Your task to perform on an android device: check google app version Image 0: 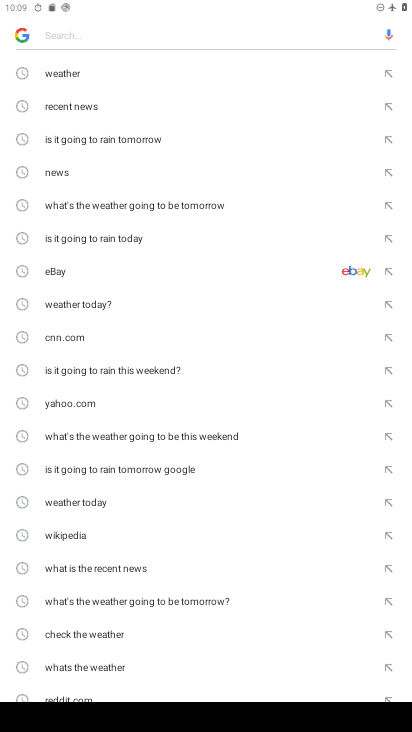
Step 0: press home button
Your task to perform on an android device: check google app version Image 1: 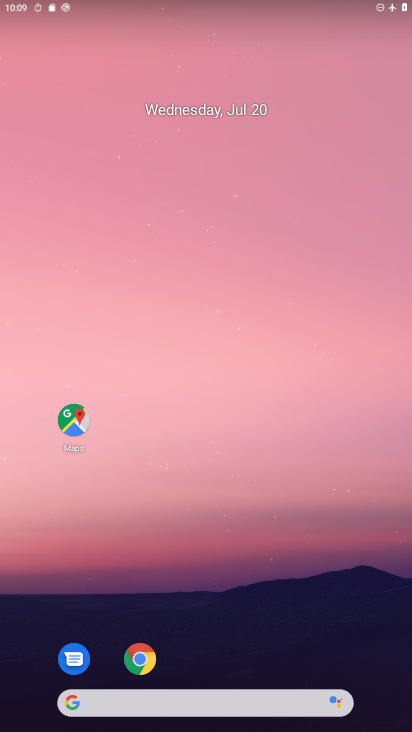
Step 1: drag from (334, 539) to (253, 120)
Your task to perform on an android device: check google app version Image 2: 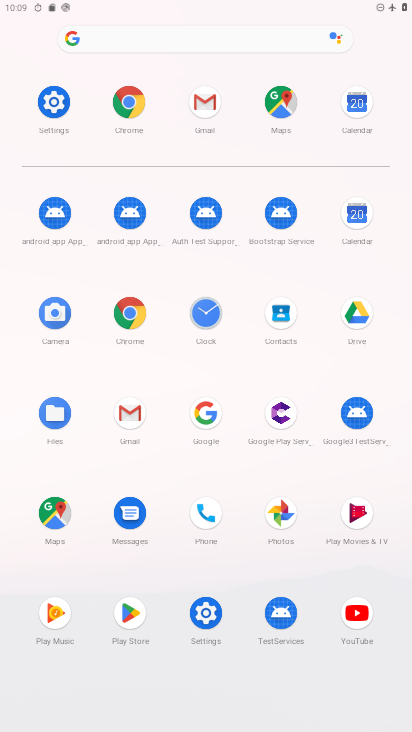
Step 2: click (209, 416)
Your task to perform on an android device: check google app version Image 3: 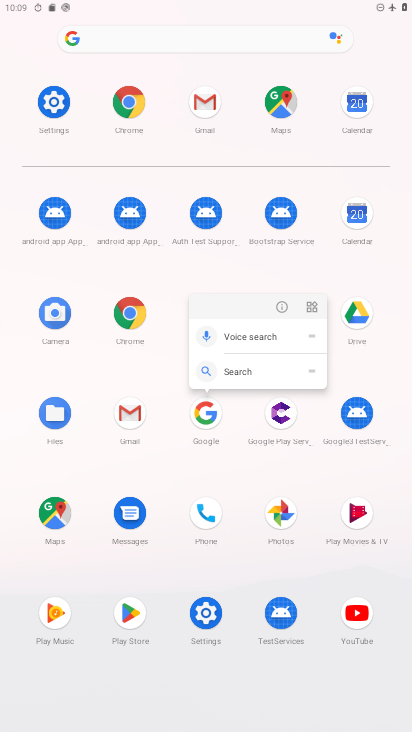
Step 3: click (276, 305)
Your task to perform on an android device: check google app version Image 4: 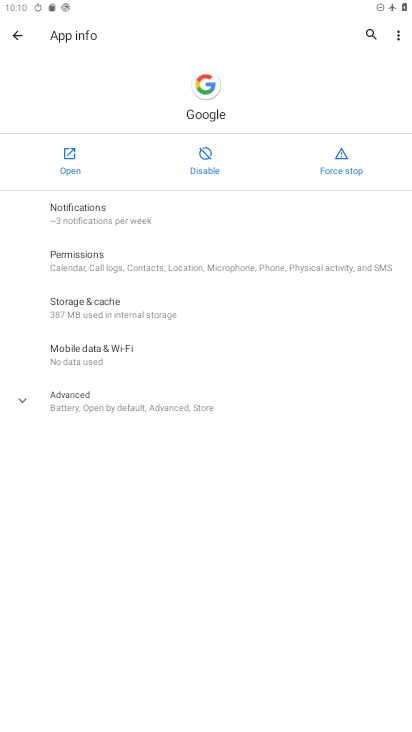
Step 4: click (179, 387)
Your task to perform on an android device: check google app version Image 5: 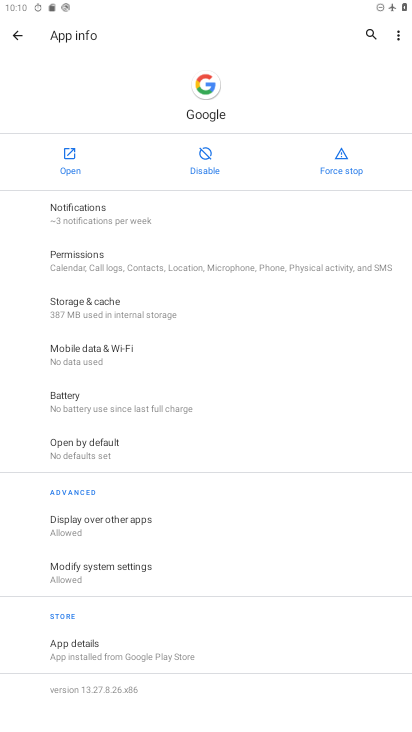
Step 5: task complete